Your task to perform on an android device: When is my next meeting? Image 0: 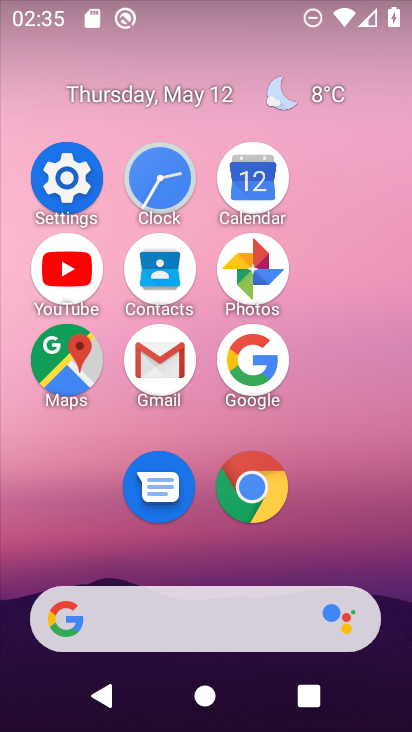
Step 0: click (263, 203)
Your task to perform on an android device: When is my next meeting? Image 1: 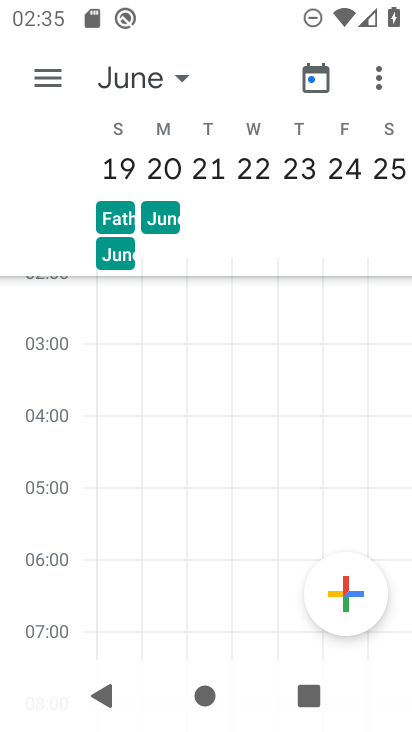
Step 1: click (122, 72)
Your task to perform on an android device: When is my next meeting? Image 2: 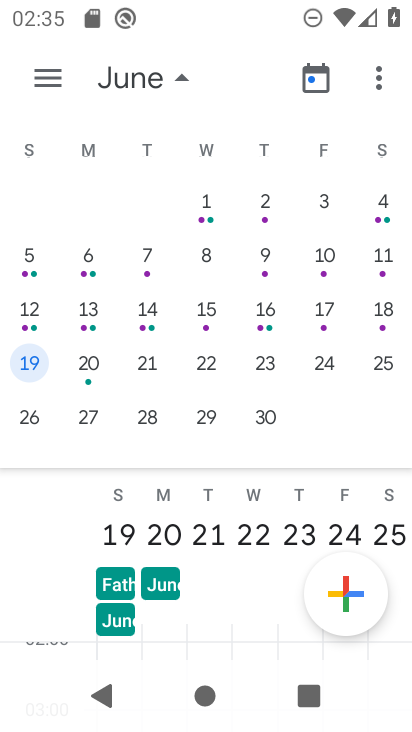
Step 2: drag from (36, 283) to (410, 313)
Your task to perform on an android device: When is my next meeting? Image 3: 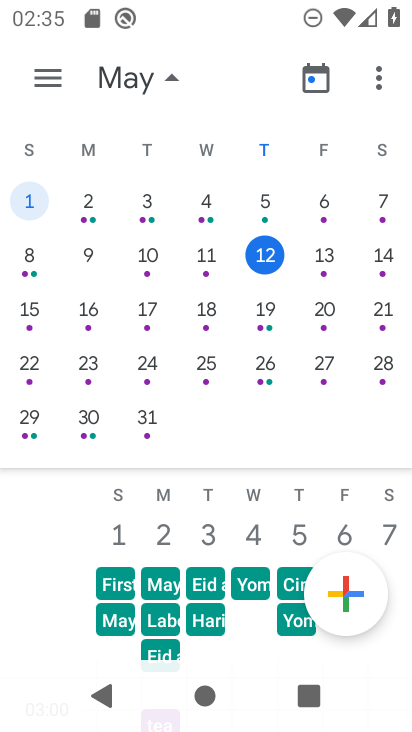
Step 3: click (323, 251)
Your task to perform on an android device: When is my next meeting? Image 4: 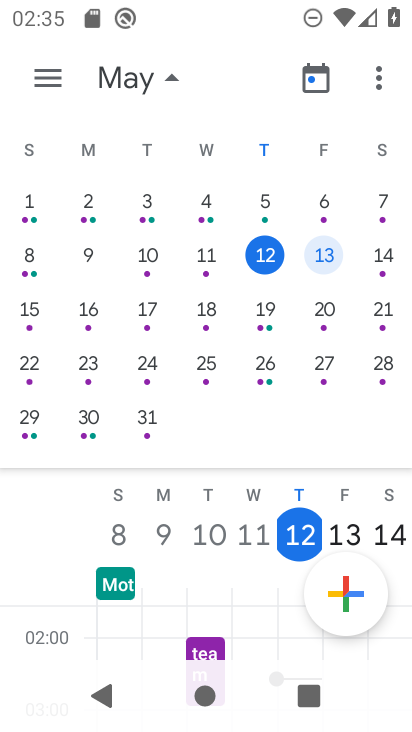
Step 4: click (322, 243)
Your task to perform on an android device: When is my next meeting? Image 5: 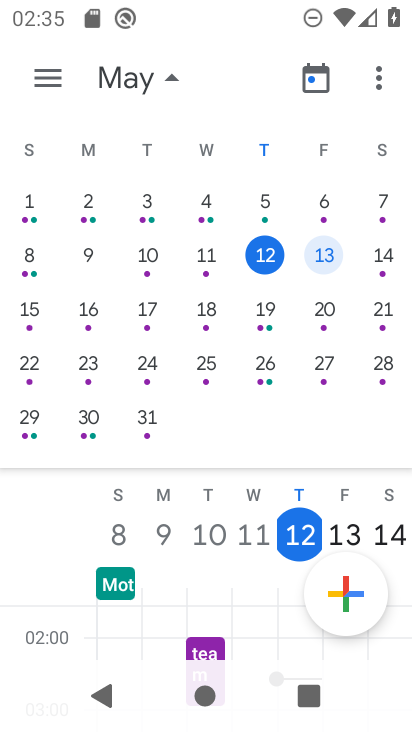
Step 5: click (335, 533)
Your task to perform on an android device: When is my next meeting? Image 6: 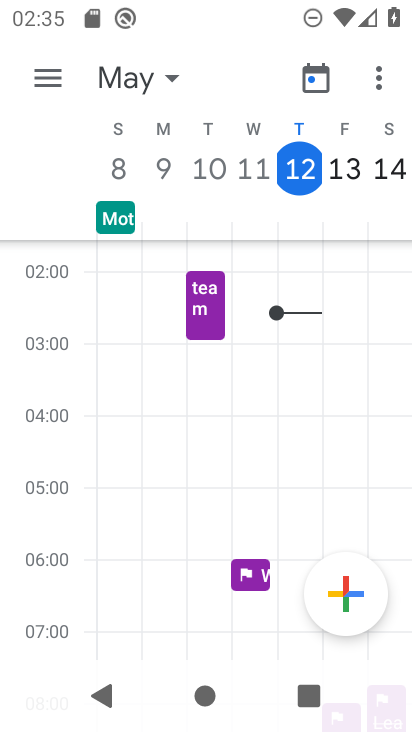
Step 6: click (333, 152)
Your task to perform on an android device: When is my next meeting? Image 7: 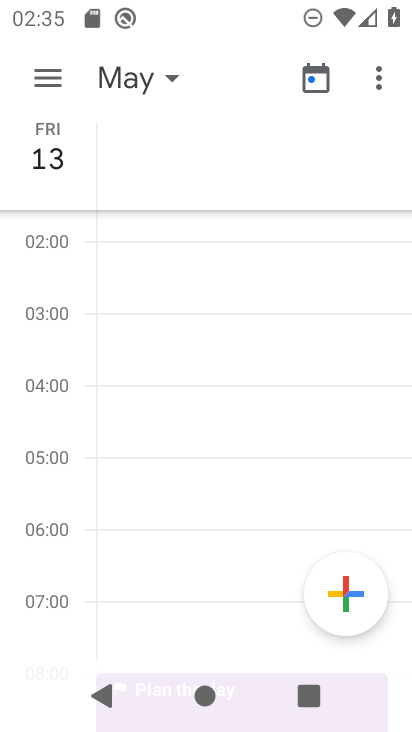
Step 7: task complete